Your task to perform on an android device: turn on the 24-hour format for clock Image 0: 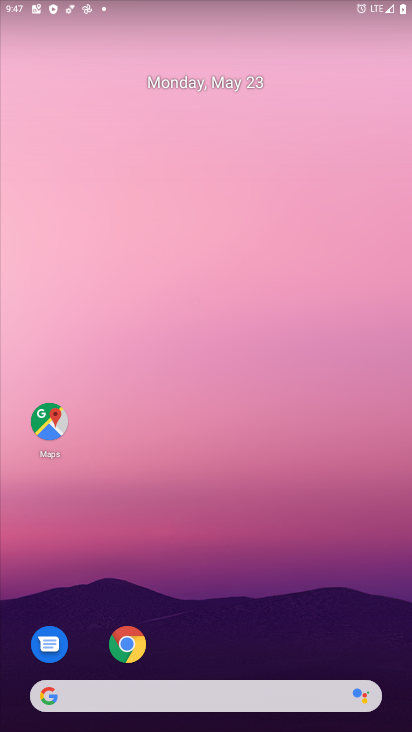
Step 0: drag from (197, 664) to (339, 33)
Your task to perform on an android device: turn on the 24-hour format for clock Image 1: 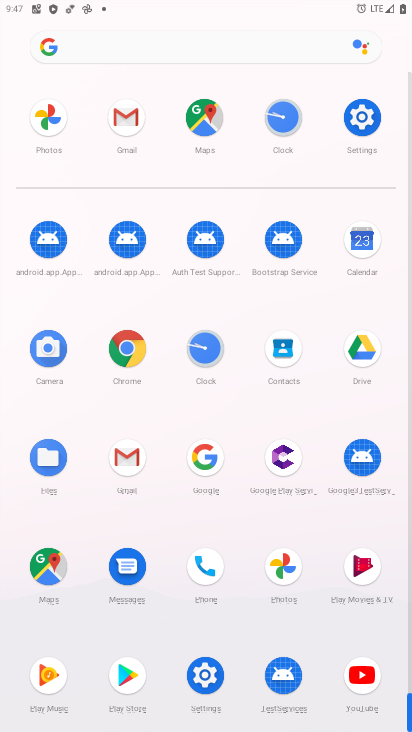
Step 1: click (349, 115)
Your task to perform on an android device: turn on the 24-hour format for clock Image 2: 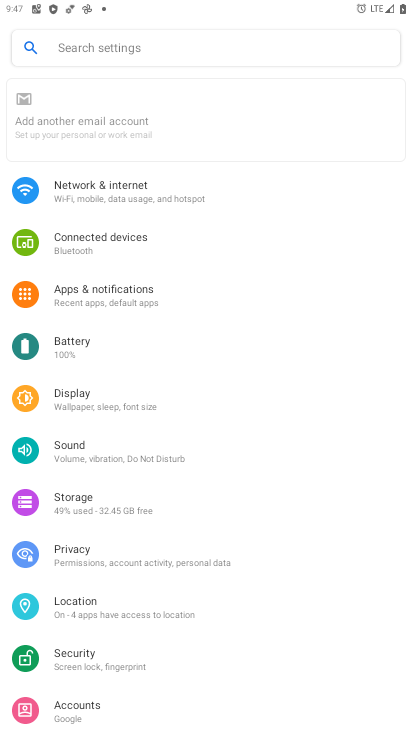
Step 2: press home button
Your task to perform on an android device: turn on the 24-hour format for clock Image 3: 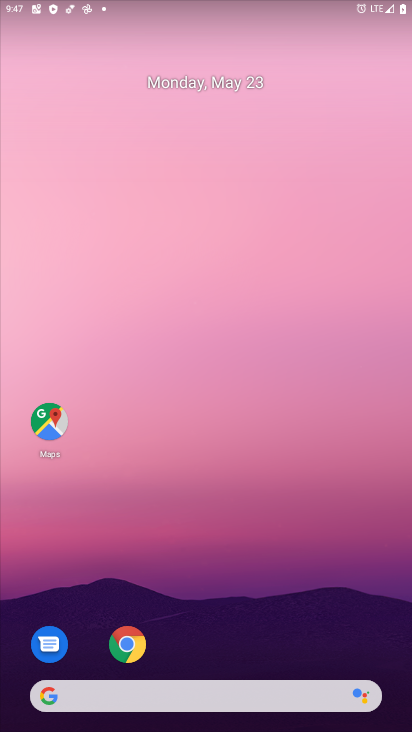
Step 3: drag from (197, 731) to (331, 20)
Your task to perform on an android device: turn on the 24-hour format for clock Image 4: 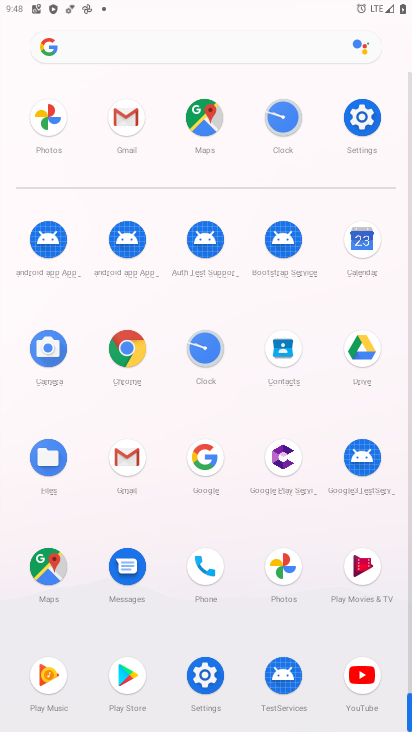
Step 4: click (194, 367)
Your task to perform on an android device: turn on the 24-hour format for clock Image 5: 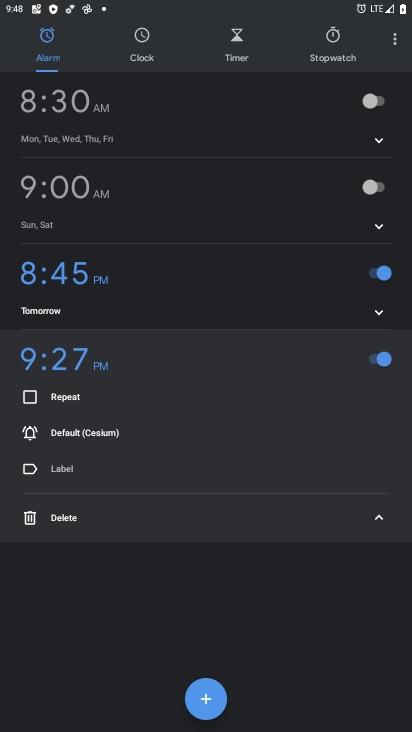
Step 5: click (392, 38)
Your task to perform on an android device: turn on the 24-hour format for clock Image 6: 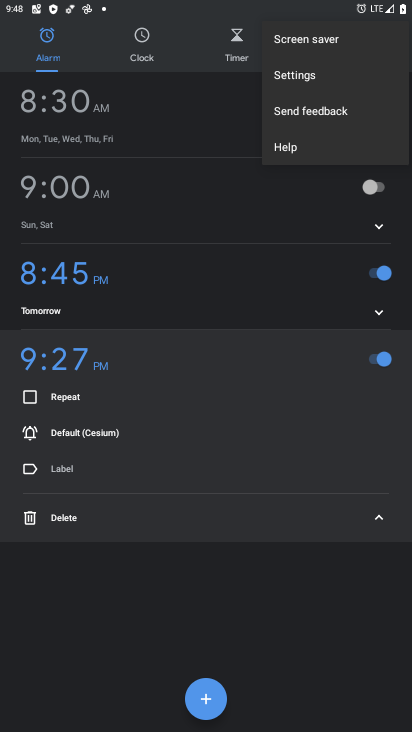
Step 6: click (310, 86)
Your task to perform on an android device: turn on the 24-hour format for clock Image 7: 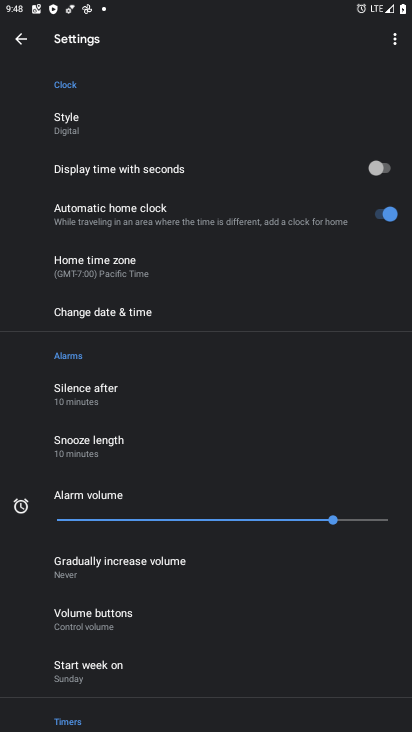
Step 7: click (115, 318)
Your task to perform on an android device: turn on the 24-hour format for clock Image 8: 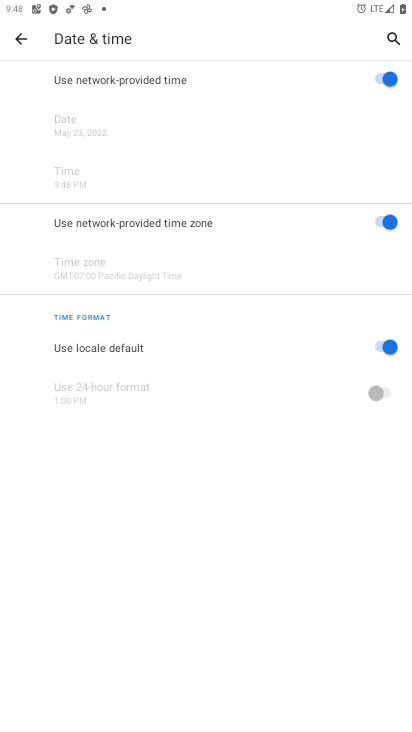
Step 8: click (388, 344)
Your task to perform on an android device: turn on the 24-hour format for clock Image 9: 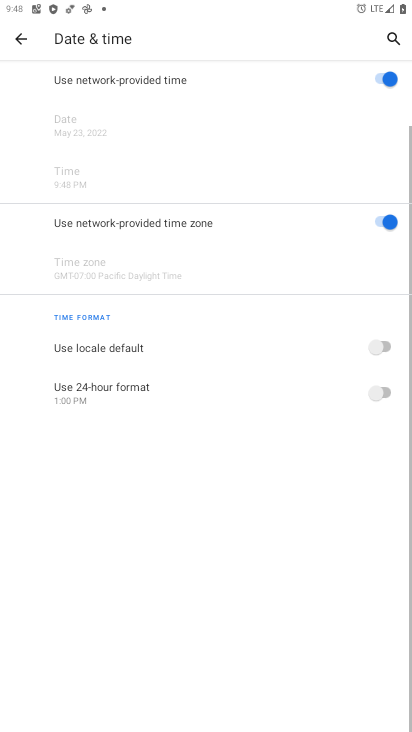
Step 9: click (386, 394)
Your task to perform on an android device: turn on the 24-hour format for clock Image 10: 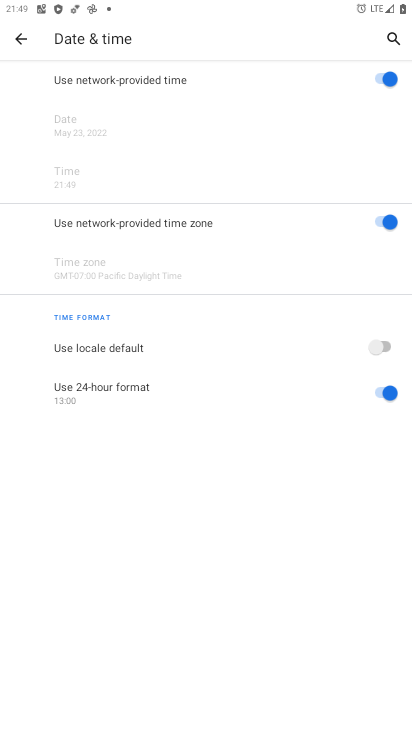
Step 10: task complete